Your task to perform on an android device: turn on improve location accuracy Image 0: 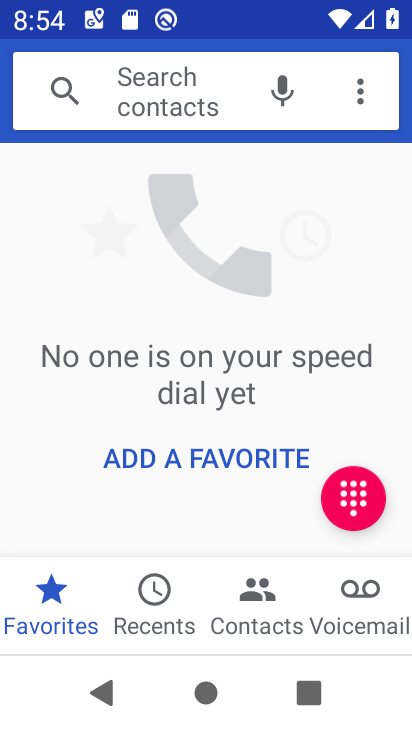
Step 0: press home button
Your task to perform on an android device: turn on improve location accuracy Image 1: 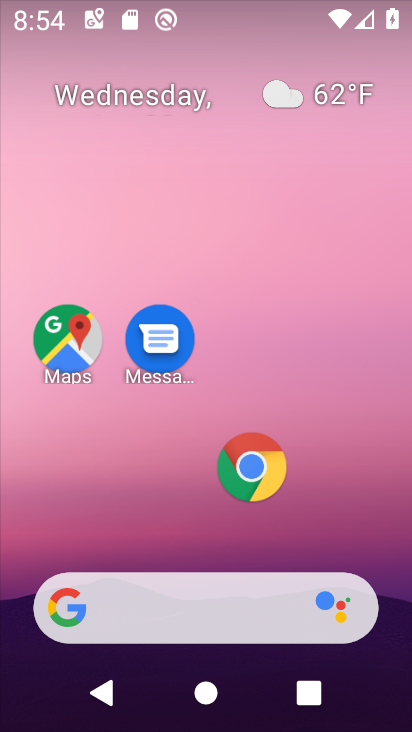
Step 1: drag from (208, 501) to (214, 318)
Your task to perform on an android device: turn on improve location accuracy Image 2: 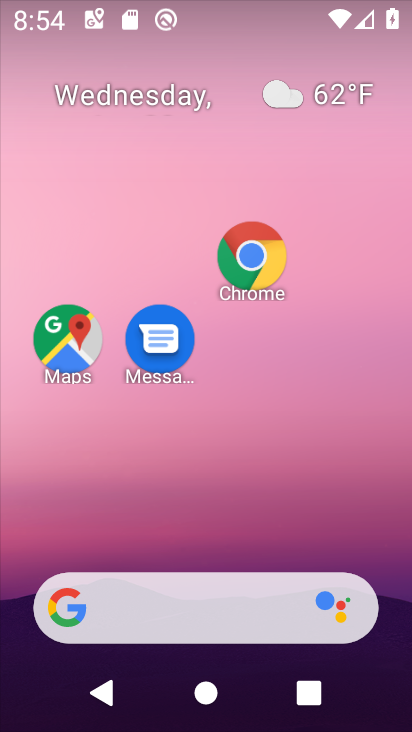
Step 2: drag from (191, 378) to (193, 95)
Your task to perform on an android device: turn on improve location accuracy Image 3: 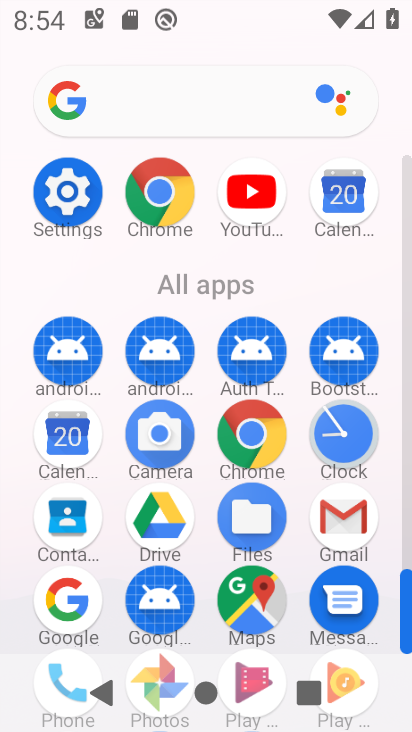
Step 3: click (70, 189)
Your task to perform on an android device: turn on improve location accuracy Image 4: 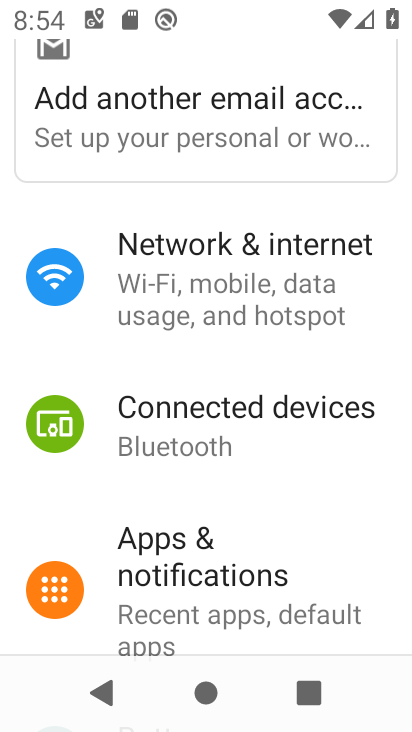
Step 4: drag from (325, 518) to (309, 143)
Your task to perform on an android device: turn on improve location accuracy Image 5: 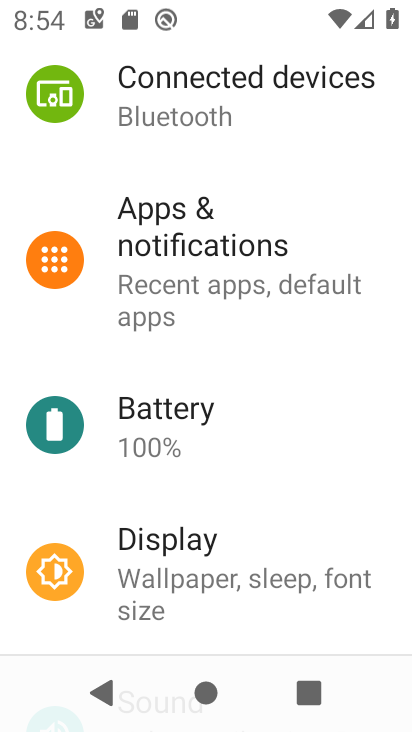
Step 5: drag from (293, 605) to (245, 196)
Your task to perform on an android device: turn on improve location accuracy Image 6: 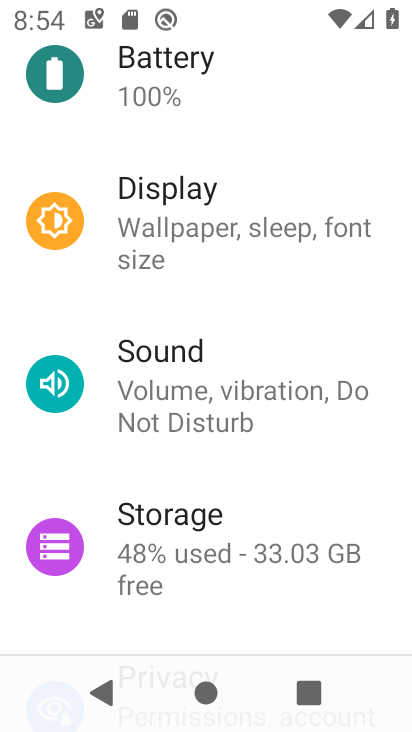
Step 6: drag from (241, 591) to (219, 173)
Your task to perform on an android device: turn on improve location accuracy Image 7: 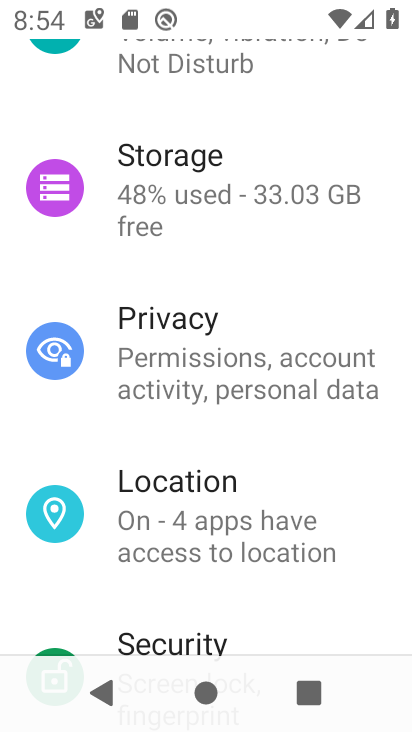
Step 7: click (173, 501)
Your task to perform on an android device: turn on improve location accuracy Image 8: 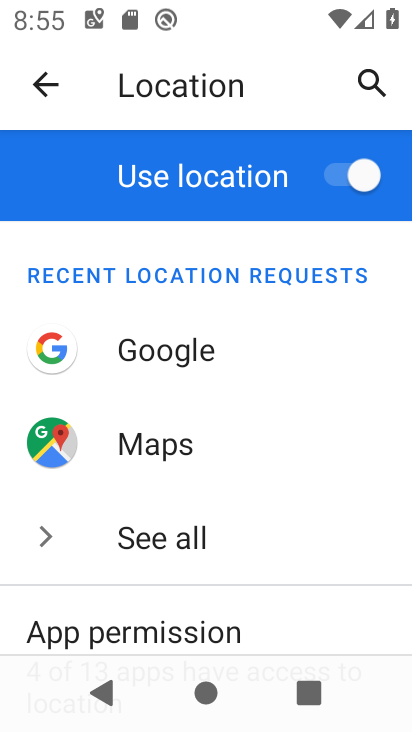
Step 8: task complete